Your task to perform on an android device: change notifications settings Image 0: 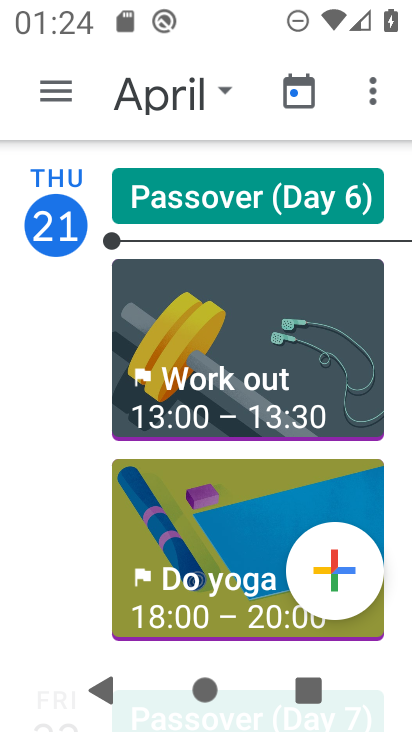
Step 0: press home button
Your task to perform on an android device: change notifications settings Image 1: 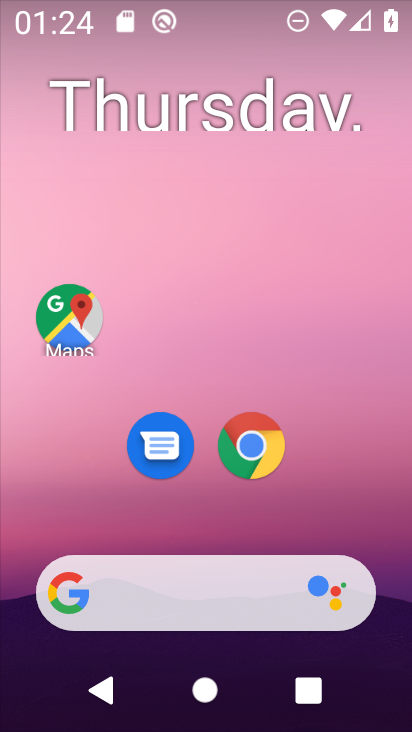
Step 1: drag from (122, 506) to (145, 88)
Your task to perform on an android device: change notifications settings Image 2: 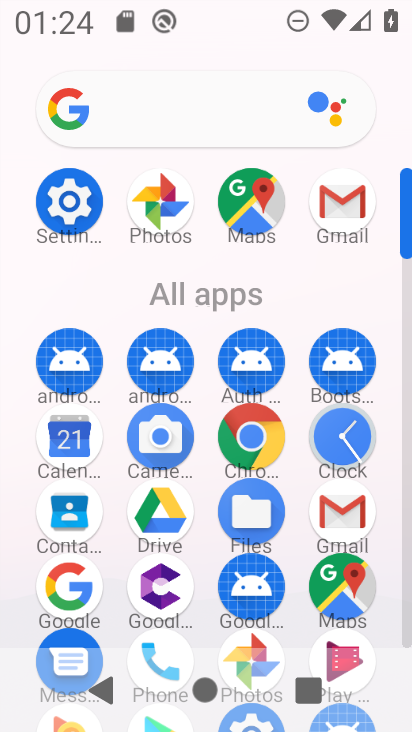
Step 2: click (75, 219)
Your task to perform on an android device: change notifications settings Image 3: 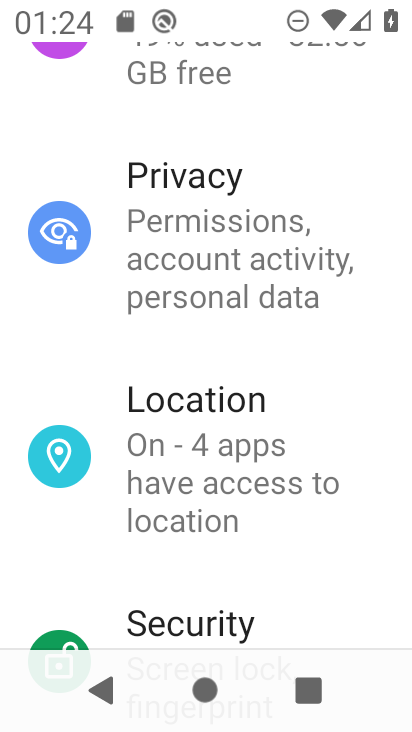
Step 3: drag from (201, 216) to (137, 496)
Your task to perform on an android device: change notifications settings Image 4: 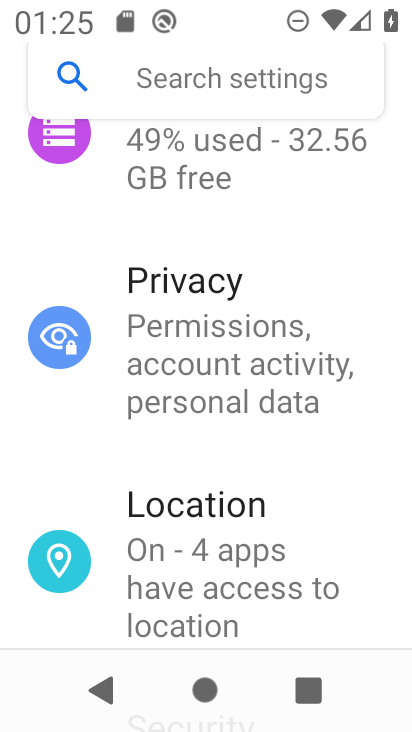
Step 4: drag from (251, 236) to (254, 658)
Your task to perform on an android device: change notifications settings Image 5: 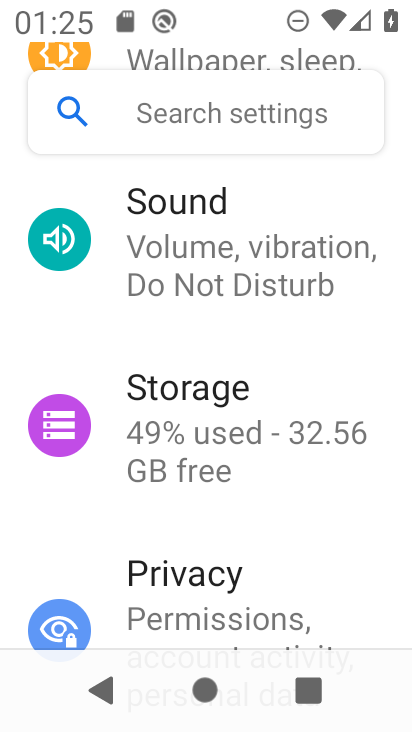
Step 5: drag from (260, 211) to (147, 594)
Your task to perform on an android device: change notifications settings Image 6: 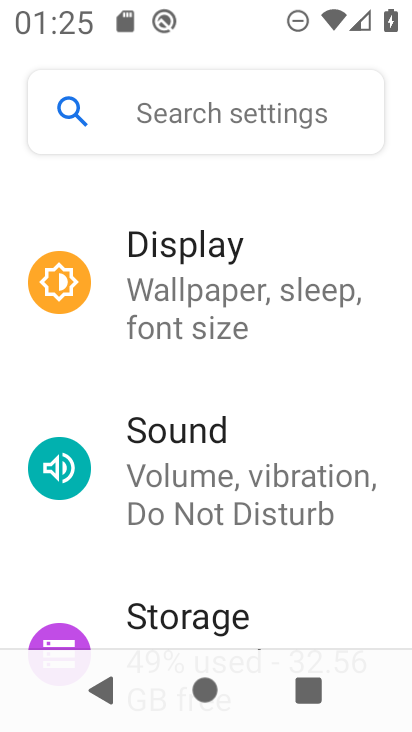
Step 6: drag from (138, 219) to (58, 620)
Your task to perform on an android device: change notifications settings Image 7: 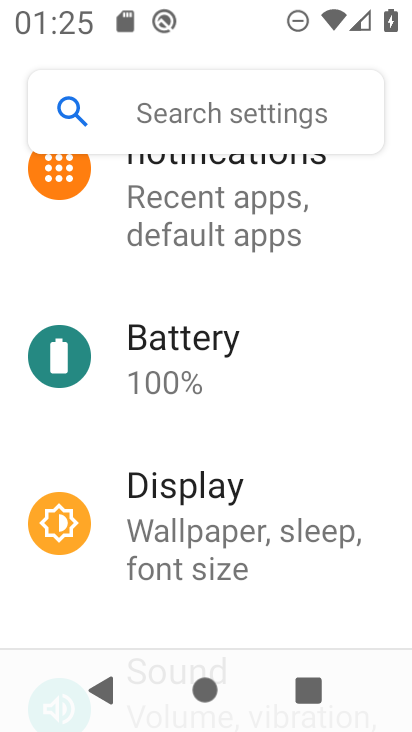
Step 7: drag from (223, 221) to (141, 648)
Your task to perform on an android device: change notifications settings Image 8: 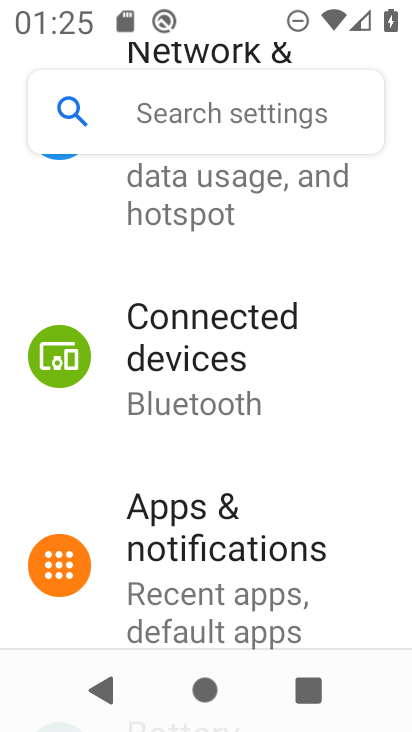
Step 8: click (162, 581)
Your task to perform on an android device: change notifications settings Image 9: 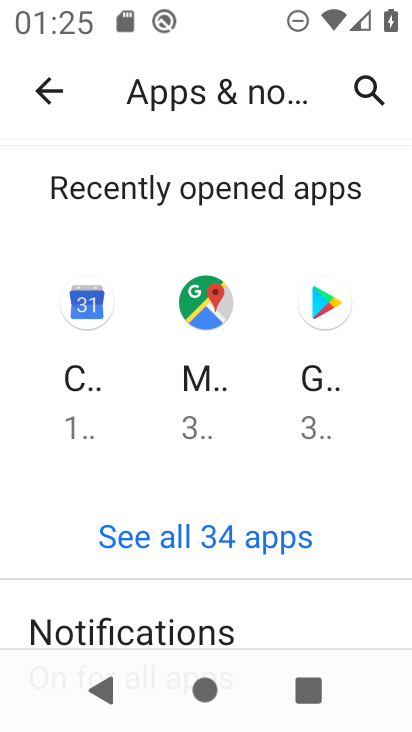
Step 9: click (131, 608)
Your task to perform on an android device: change notifications settings Image 10: 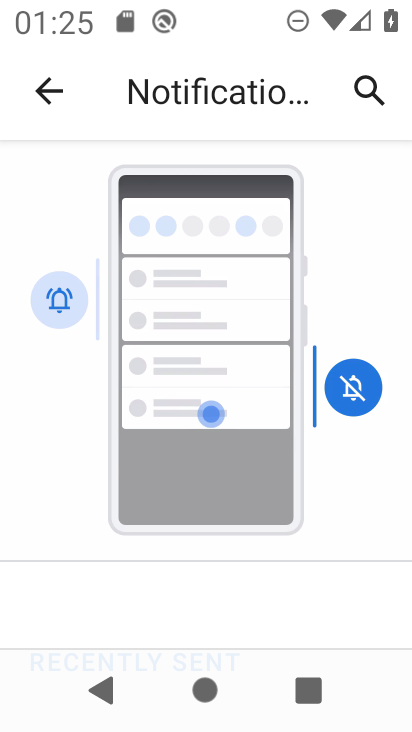
Step 10: drag from (165, 601) to (280, 112)
Your task to perform on an android device: change notifications settings Image 11: 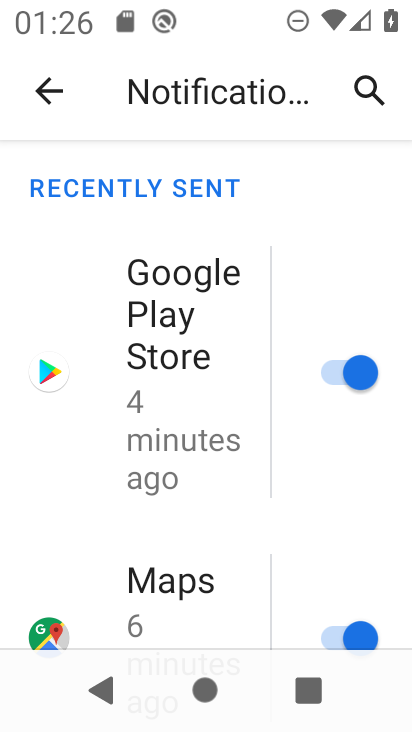
Step 11: drag from (142, 532) to (244, 60)
Your task to perform on an android device: change notifications settings Image 12: 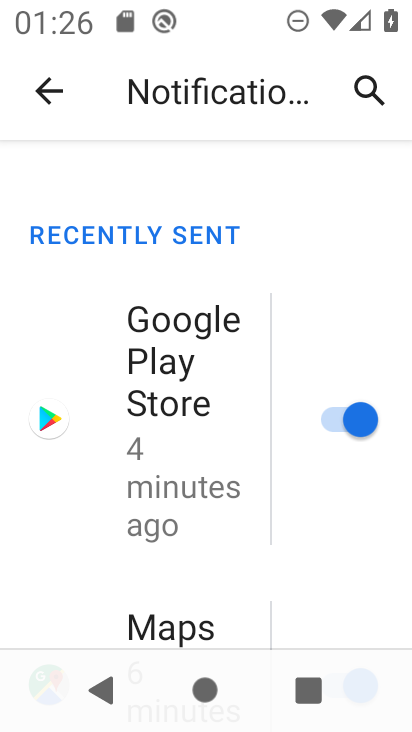
Step 12: drag from (96, 550) to (82, 97)
Your task to perform on an android device: change notifications settings Image 13: 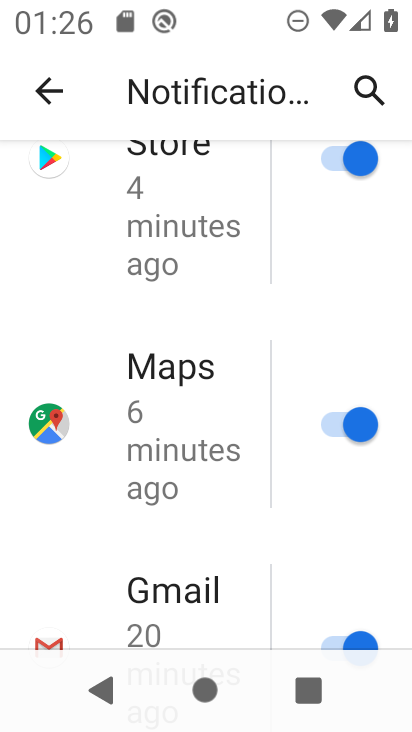
Step 13: drag from (55, 551) to (61, 171)
Your task to perform on an android device: change notifications settings Image 14: 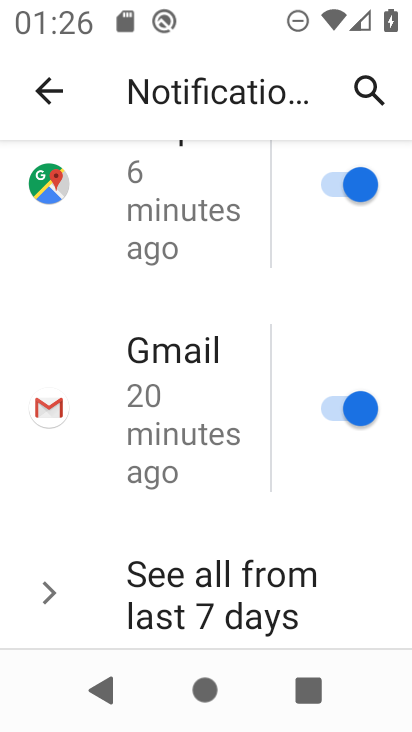
Step 14: drag from (171, 544) to (134, 68)
Your task to perform on an android device: change notifications settings Image 15: 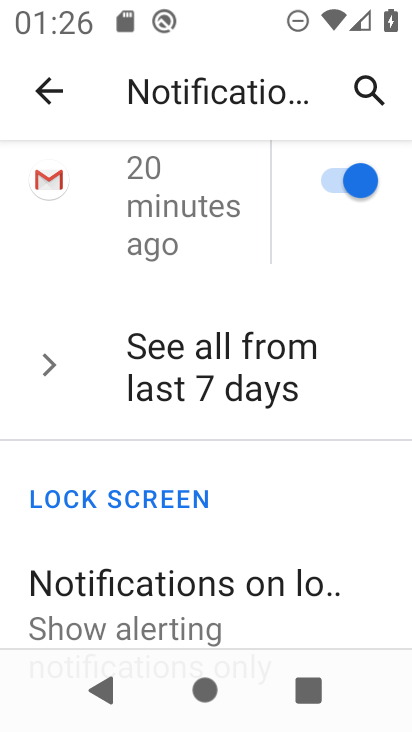
Step 15: drag from (181, 579) to (201, 145)
Your task to perform on an android device: change notifications settings Image 16: 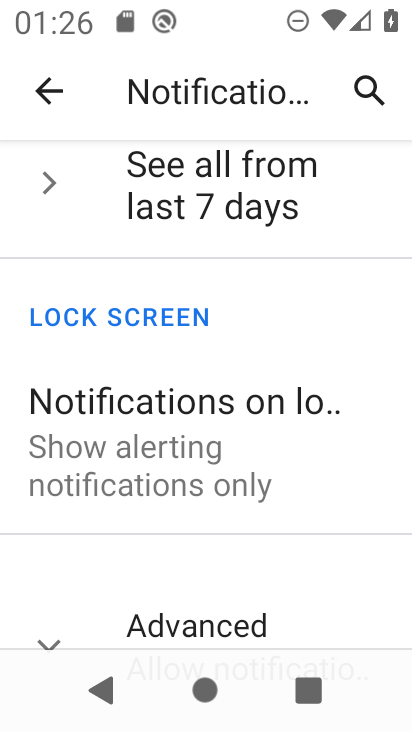
Step 16: click (122, 475)
Your task to perform on an android device: change notifications settings Image 17: 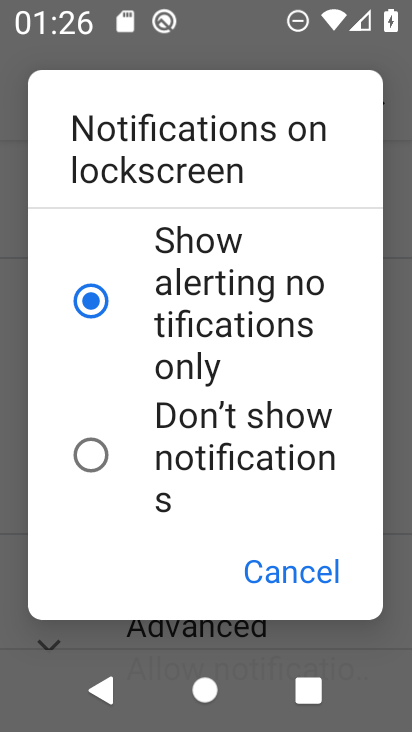
Step 17: click (274, 590)
Your task to perform on an android device: change notifications settings Image 18: 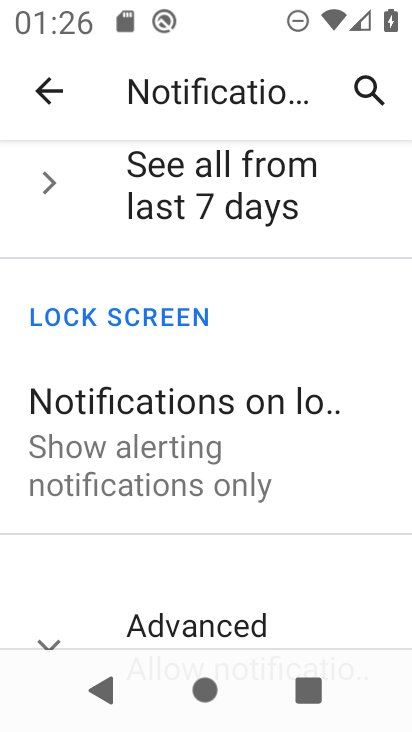
Step 18: drag from (139, 594) to (146, 261)
Your task to perform on an android device: change notifications settings Image 19: 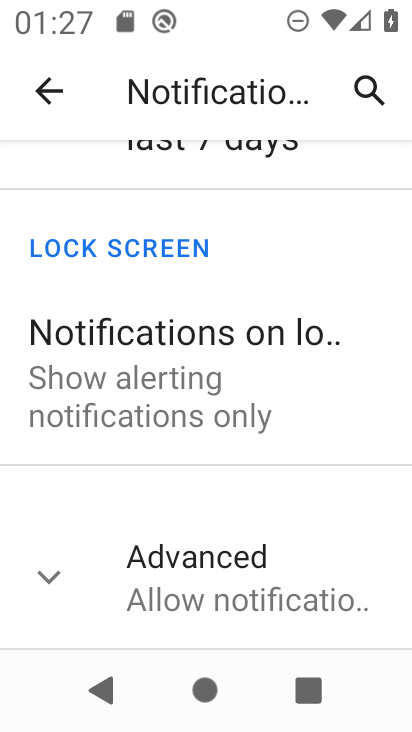
Step 19: click (224, 617)
Your task to perform on an android device: change notifications settings Image 20: 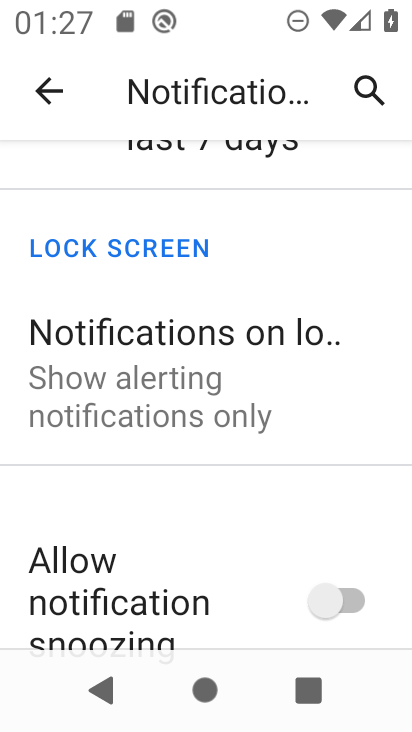
Step 20: drag from (168, 563) to (209, 140)
Your task to perform on an android device: change notifications settings Image 21: 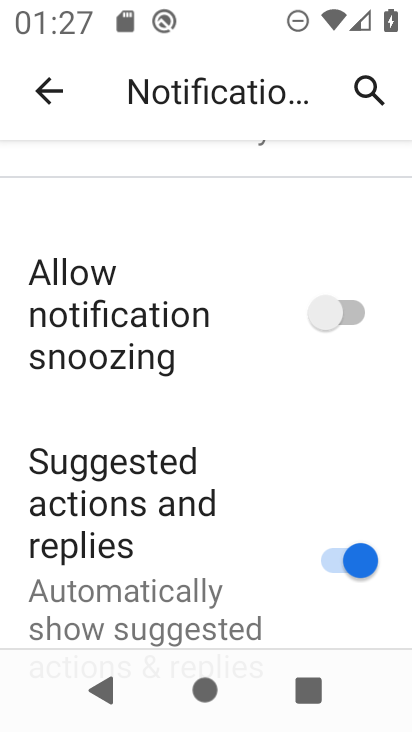
Step 21: click (339, 553)
Your task to perform on an android device: change notifications settings Image 22: 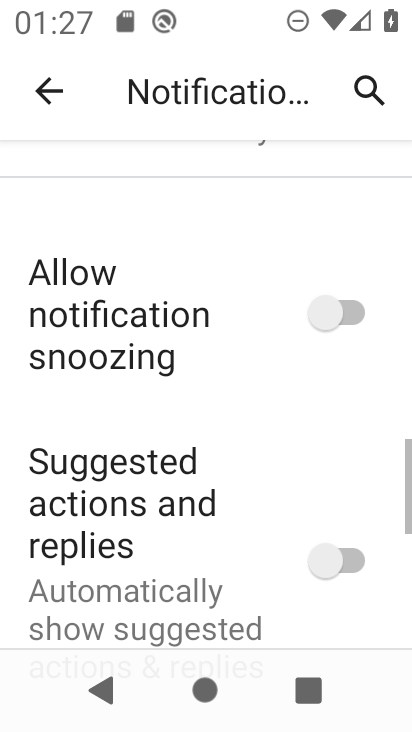
Step 22: click (350, 310)
Your task to perform on an android device: change notifications settings Image 23: 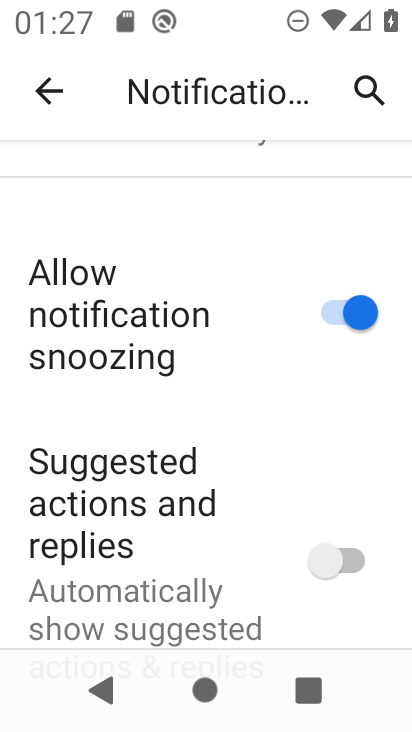
Step 23: task complete